Your task to perform on an android device: move a message to another label in the gmail app Image 0: 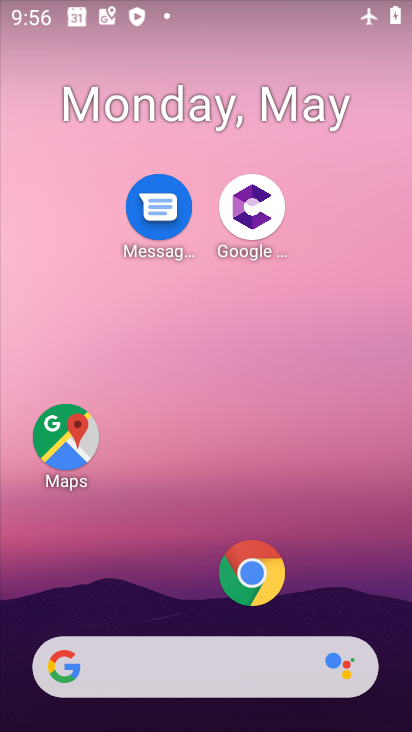
Step 0: drag from (149, 648) to (168, 152)
Your task to perform on an android device: move a message to another label in the gmail app Image 1: 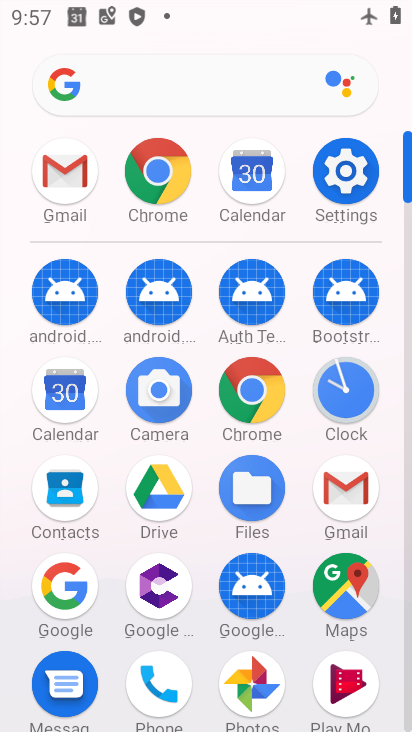
Step 1: click (354, 506)
Your task to perform on an android device: move a message to another label in the gmail app Image 2: 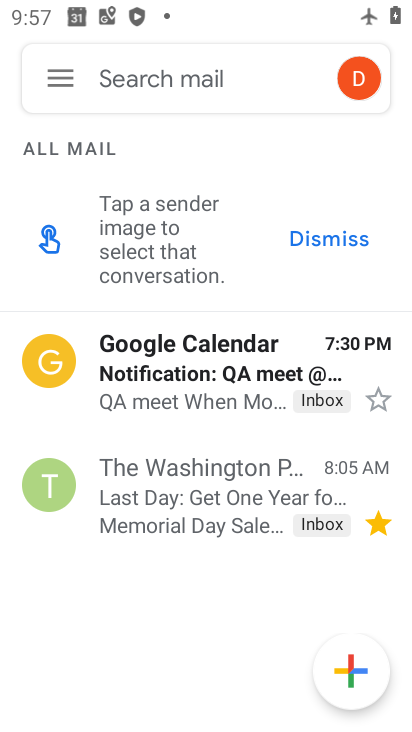
Step 2: click (186, 393)
Your task to perform on an android device: move a message to another label in the gmail app Image 3: 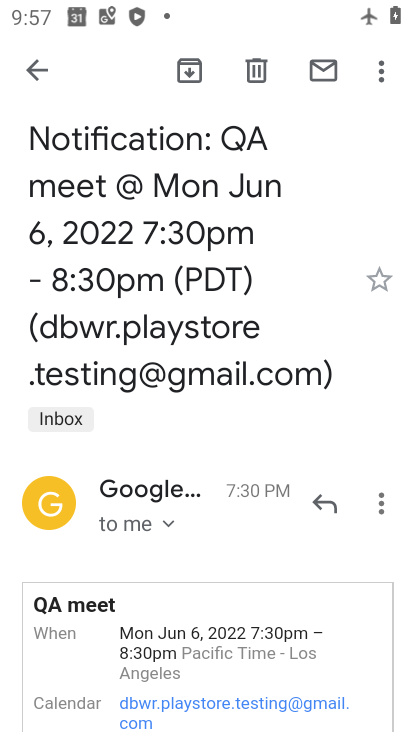
Step 3: click (387, 75)
Your task to perform on an android device: move a message to another label in the gmail app Image 4: 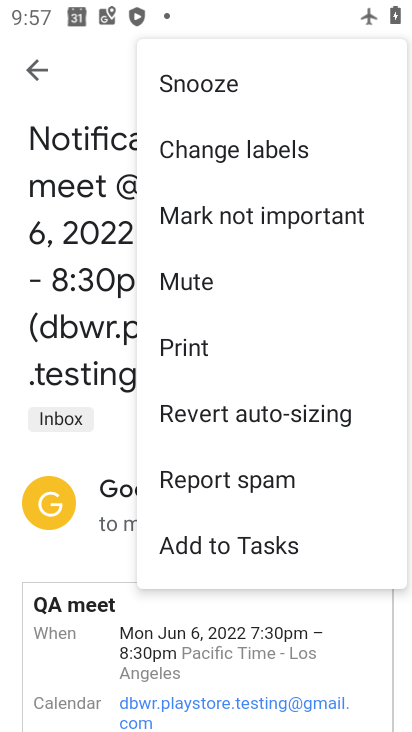
Step 4: click (264, 165)
Your task to perform on an android device: move a message to another label in the gmail app Image 5: 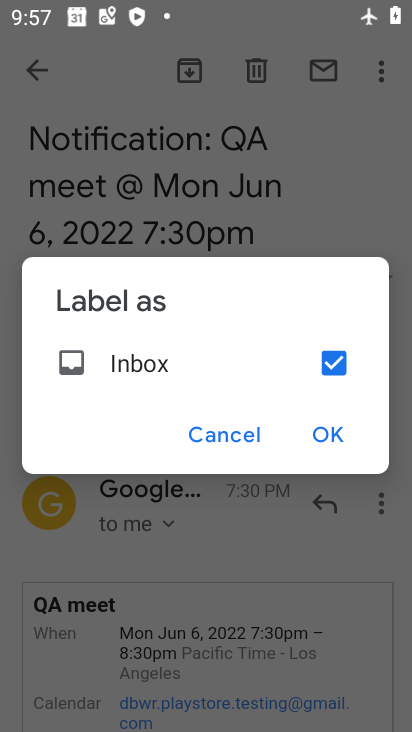
Step 5: click (338, 432)
Your task to perform on an android device: move a message to another label in the gmail app Image 6: 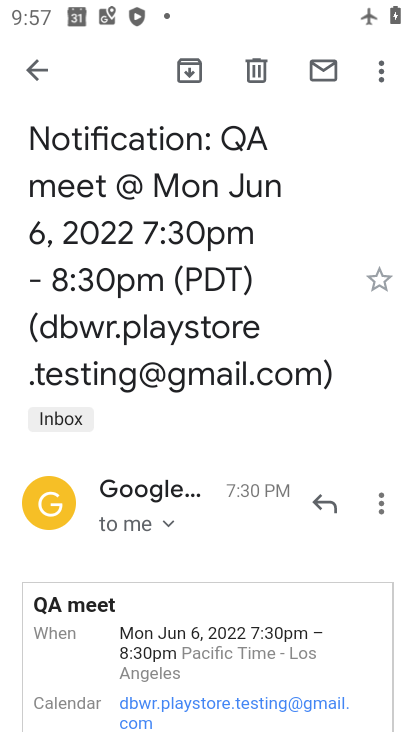
Step 6: task complete